Your task to perform on an android device: What's the weather today? Image 0: 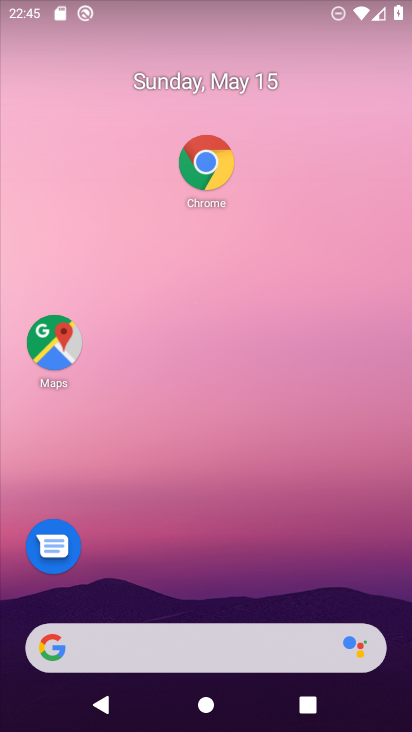
Step 0: drag from (244, 562) to (286, 203)
Your task to perform on an android device: What's the weather today? Image 1: 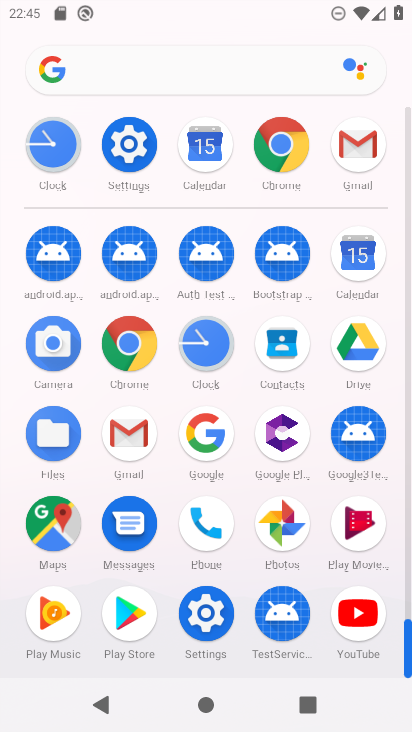
Step 1: click (286, 133)
Your task to perform on an android device: What's the weather today? Image 2: 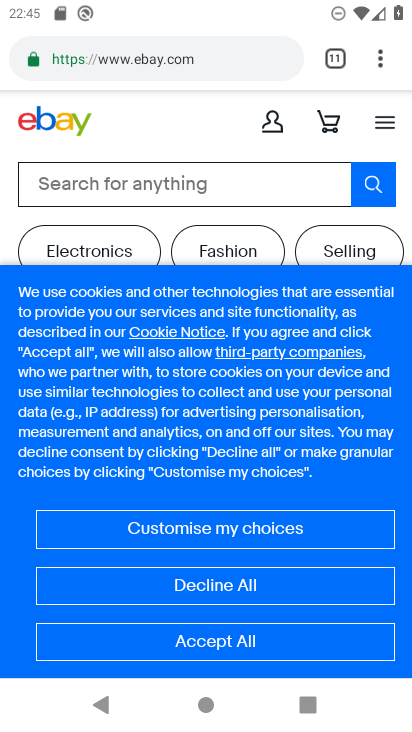
Step 2: click (368, 53)
Your task to perform on an android device: What's the weather today? Image 3: 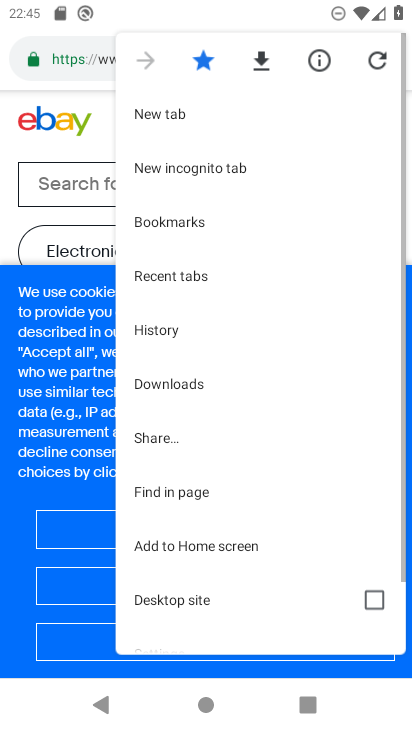
Step 3: click (222, 110)
Your task to perform on an android device: What's the weather today? Image 4: 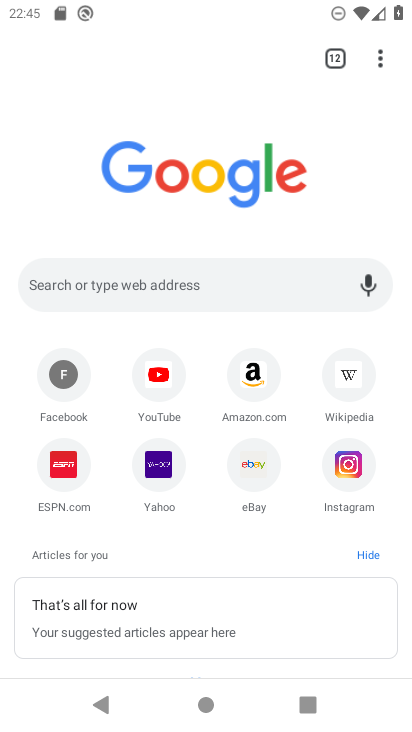
Step 4: click (117, 267)
Your task to perform on an android device: What's the weather today? Image 5: 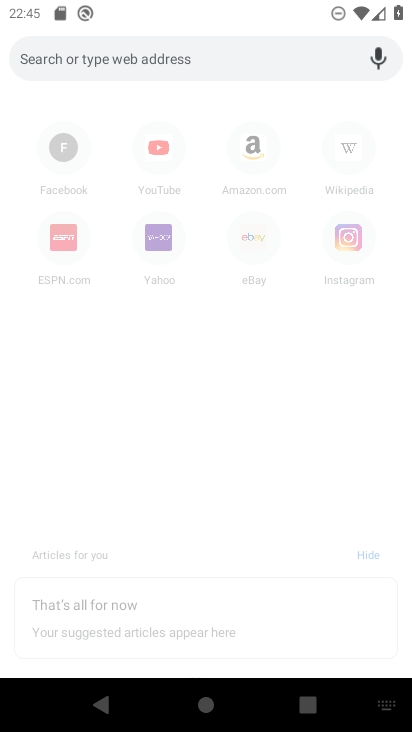
Step 5: type "What's the weather today?"
Your task to perform on an android device: What's the weather today? Image 6: 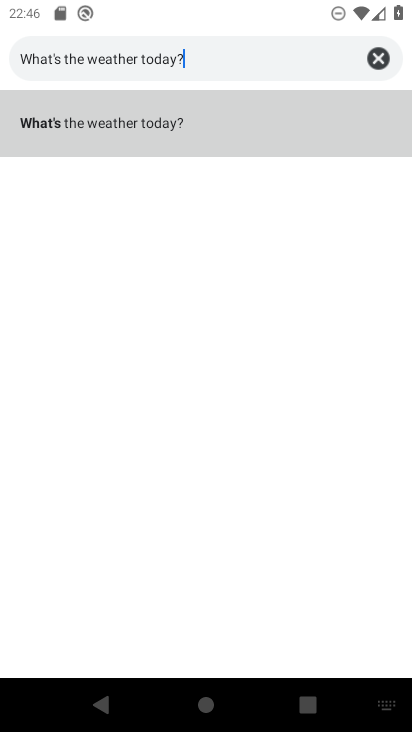
Step 6: click (86, 133)
Your task to perform on an android device: What's the weather today? Image 7: 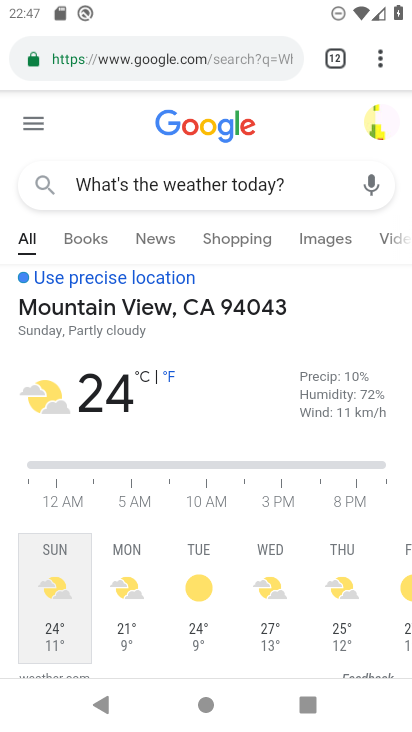
Step 7: task complete